Your task to perform on an android device: Open sound settings Image 0: 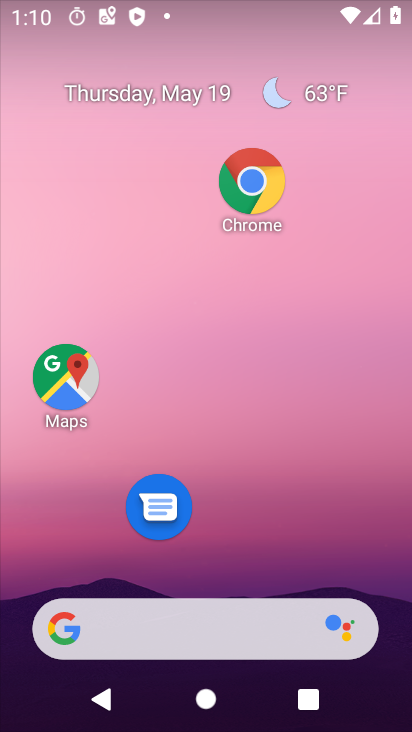
Step 0: drag from (202, 563) to (248, 171)
Your task to perform on an android device: Open sound settings Image 1: 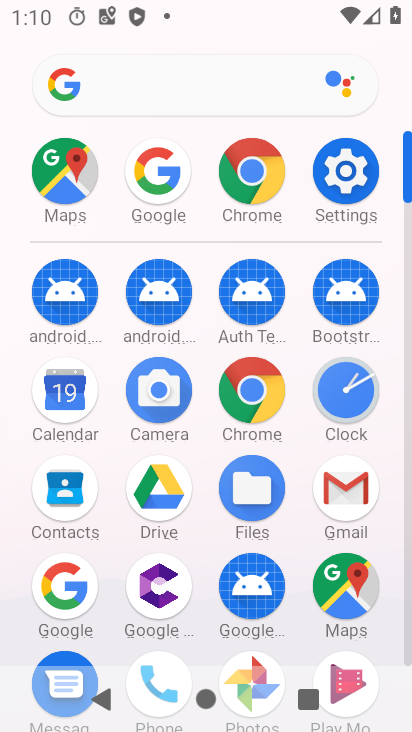
Step 1: click (345, 211)
Your task to perform on an android device: Open sound settings Image 2: 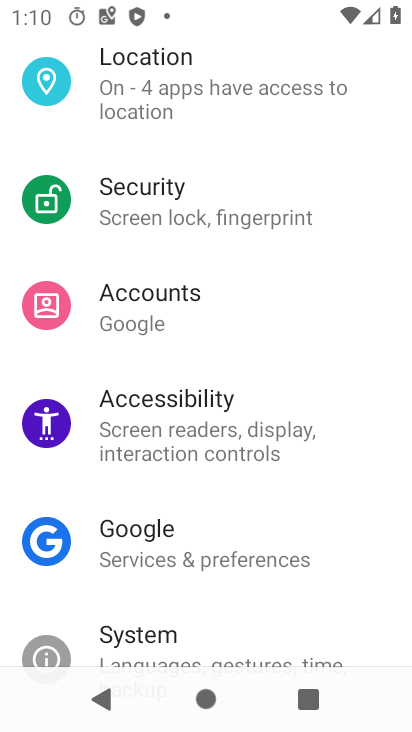
Step 2: drag from (133, 214) to (110, 487)
Your task to perform on an android device: Open sound settings Image 3: 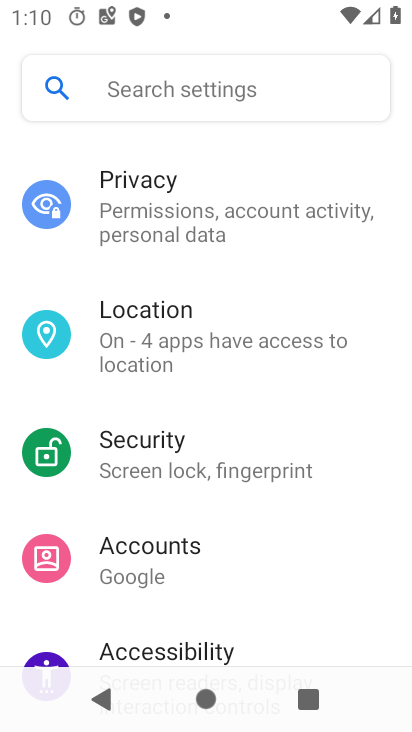
Step 3: drag from (205, 317) to (219, 532)
Your task to perform on an android device: Open sound settings Image 4: 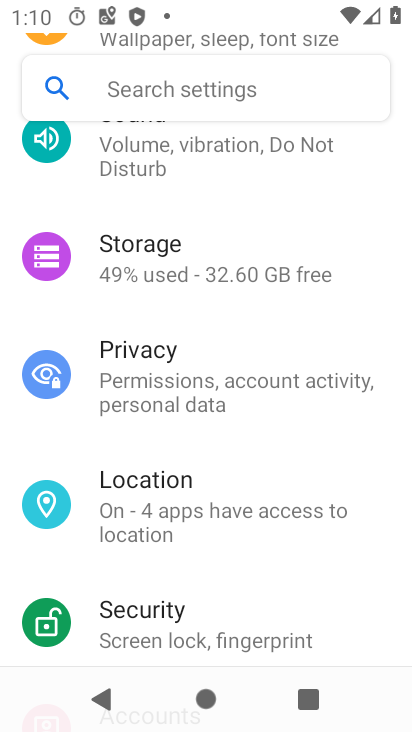
Step 4: drag from (201, 276) to (188, 431)
Your task to perform on an android device: Open sound settings Image 5: 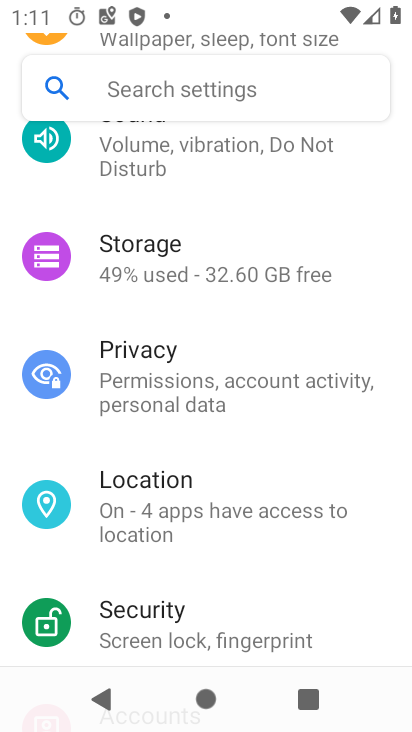
Step 5: click (222, 507)
Your task to perform on an android device: Open sound settings Image 6: 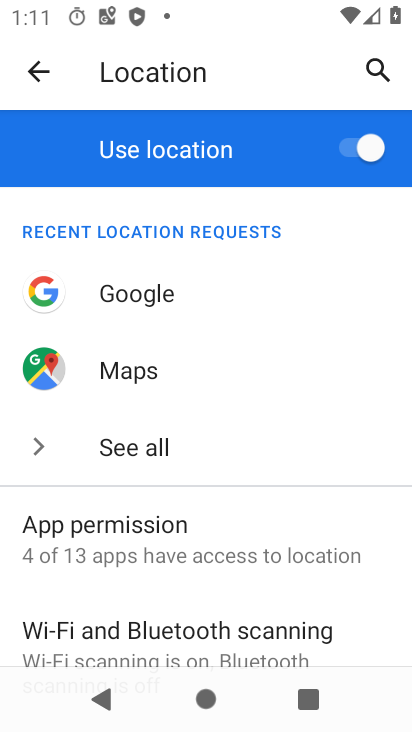
Step 6: click (19, 72)
Your task to perform on an android device: Open sound settings Image 7: 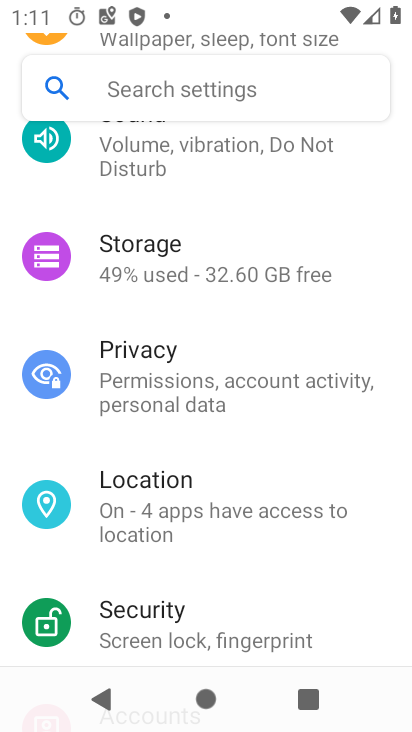
Step 7: drag from (224, 267) to (259, 516)
Your task to perform on an android device: Open sound settings Image 8: 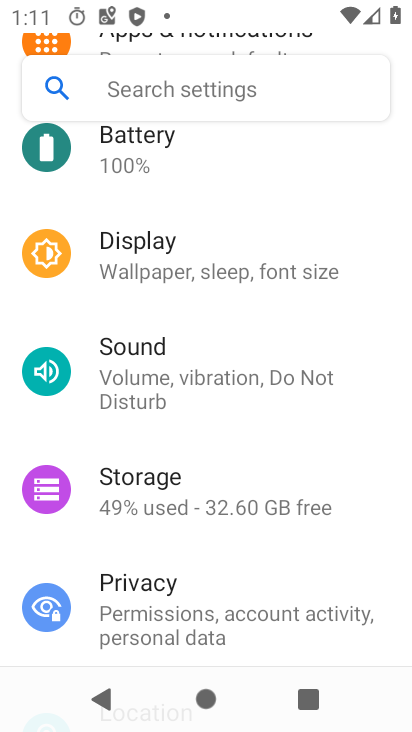
Step 8: click (174, 368)
Your task to perform on an android device: Open sound settings Image 9: 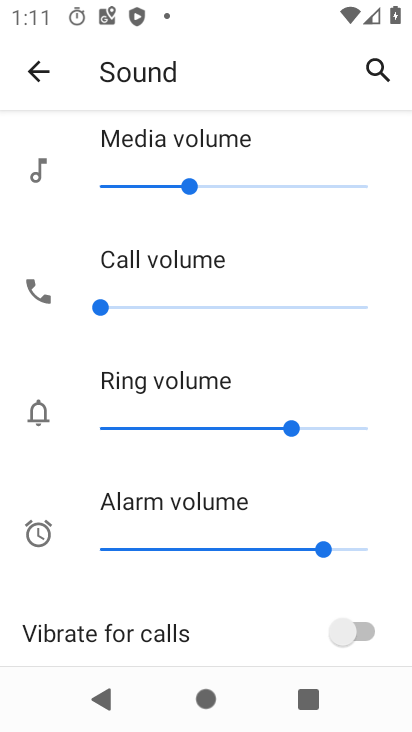
Step 9: task complete